Your task to perform on an android device: Open accessibility settings Image 0: 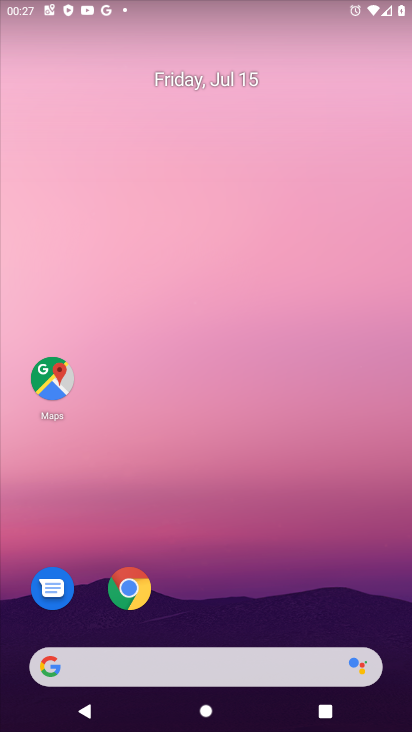
Step 0: drag from (163, 616) to (299, 29)
Your task to perform on an android device: Open accessibility settings Image 1: 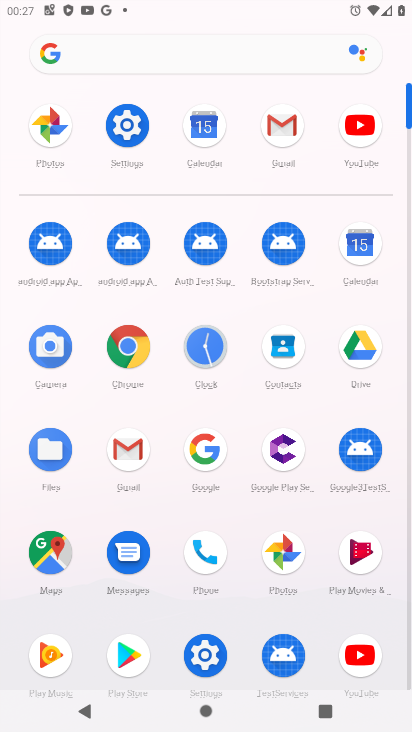
Step 1: click (139, 127)
Your task to perform on an android device: Open accessibility settings Image 2: 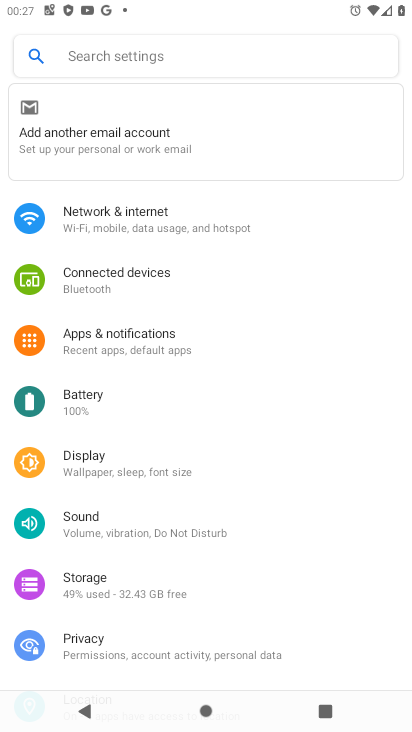
Step 2: drag from (229, 618) to (324, 171)
Your task to perform on an android device: Open accessibility settings Image 3: 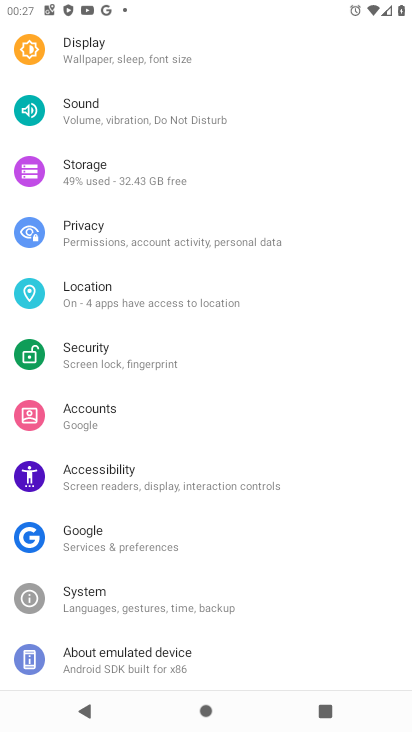
Step 3: click (112, 475)
Your task to perform on an android device: Open accessibility settings Image 4: 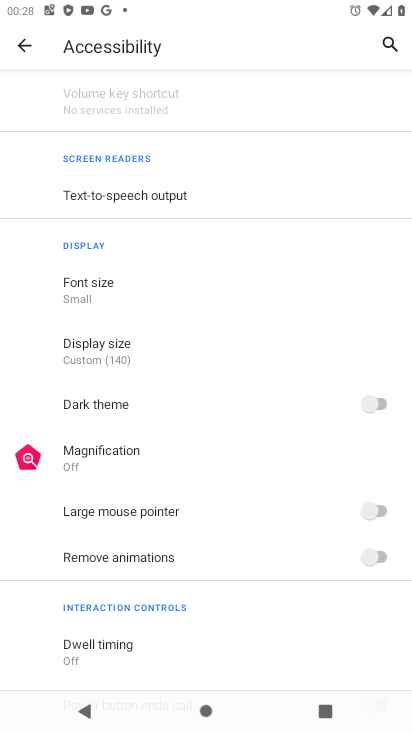
Step 4: task complete